Your task to perform on an android device: Go to Yahoo.com Image 0: 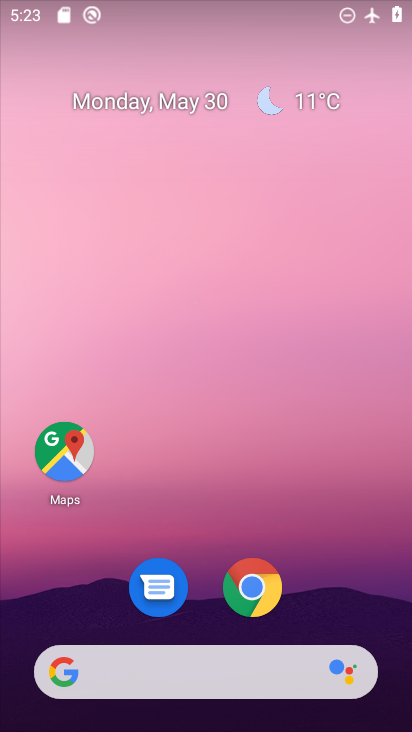
Step 0: drag from (352, 574) to (275, 5)
Your task to perform on an android device: Go to Yahoo.com Image 1: 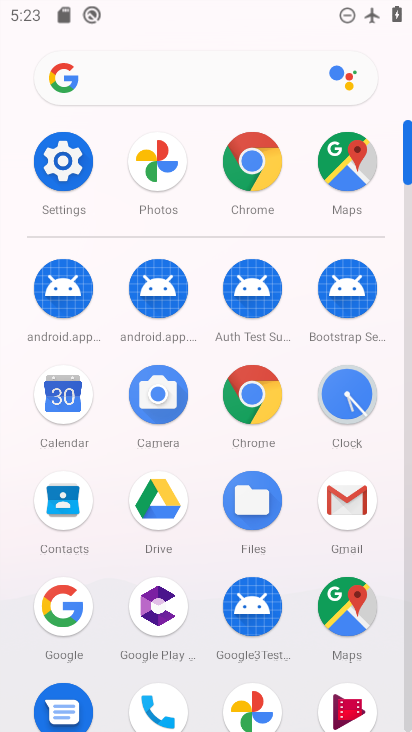
Step 1: drag from (0, 545) to (9, 219)
Your task to perform on an android device: Go to Yahoo.com Image 2: 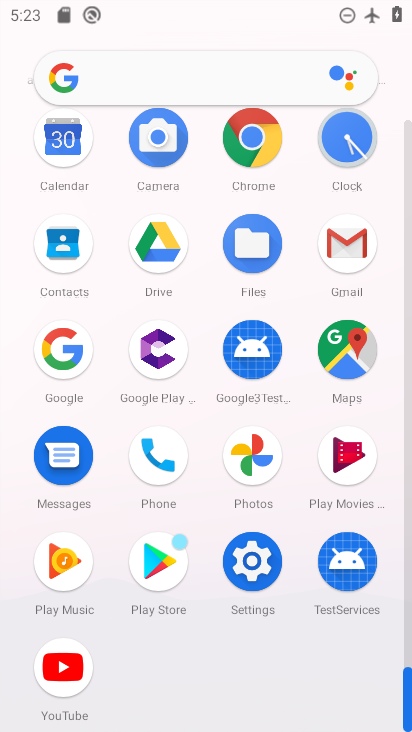
Step 2: click (252, 133)
Your task to perform on an android device: Go to Yahoo.com Image 3: 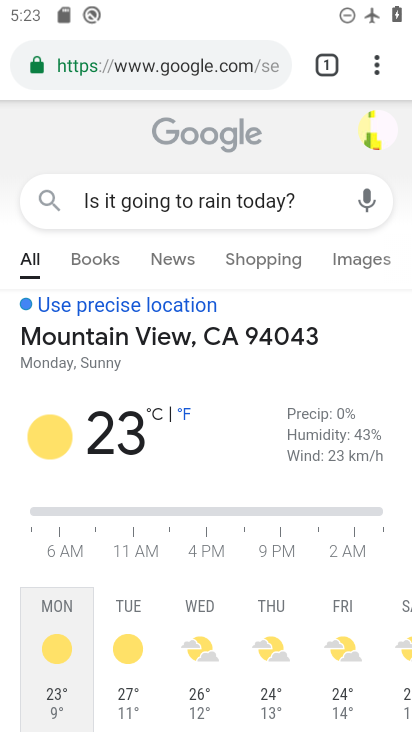
Step 3: click (177, 58)
Your task to perform on an android device: Go to Yahoo.com Image 4: 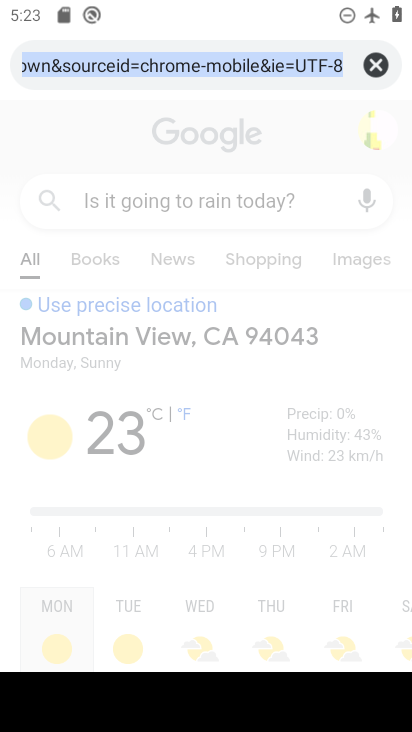
Step 4: click (368, 60)
Your task to perform on an android device: Go to Yahoo.com Image 5: 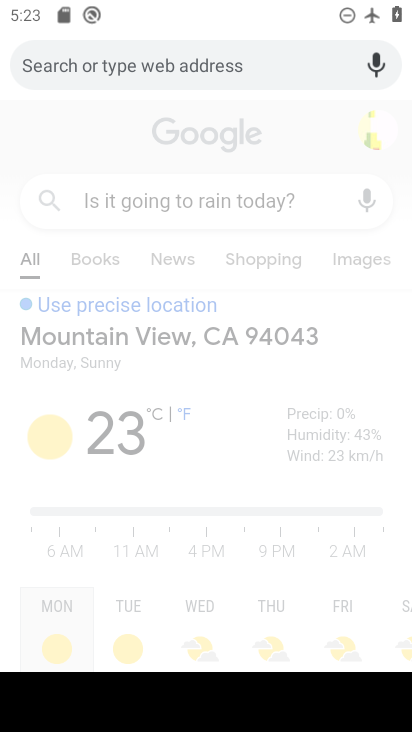
Step 5: type "Yahoo.com"
Your task to perform on an android device: Go to Yahoo.com Image 6: 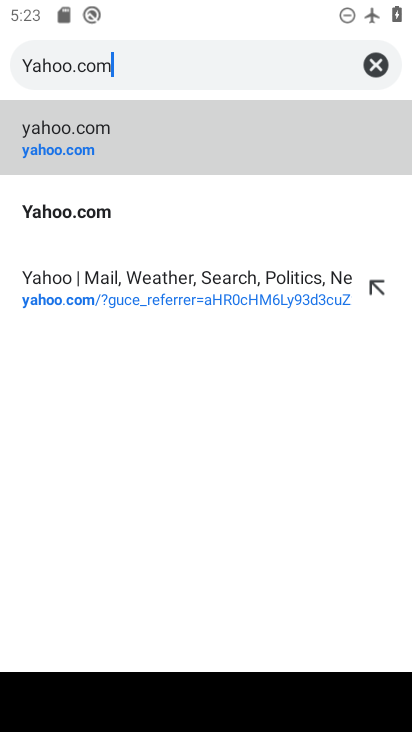
Step 6: type ""
Your task to perform on an android device: Go to Yahoo.com Image 7: 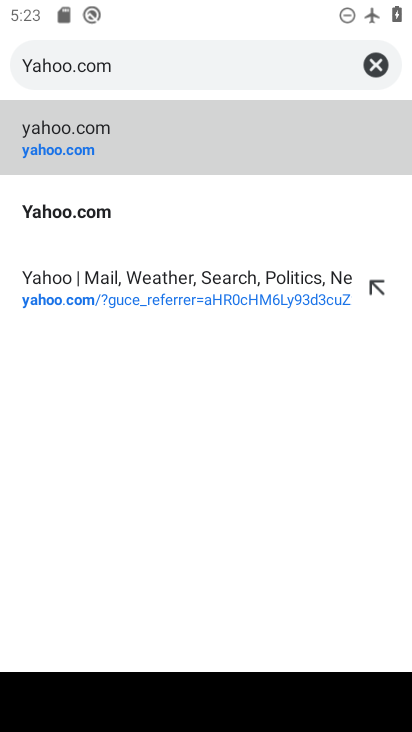
Step 7: click (94, 148)
Your task to perform on an android device: Go to Yahoo.com Image 8: 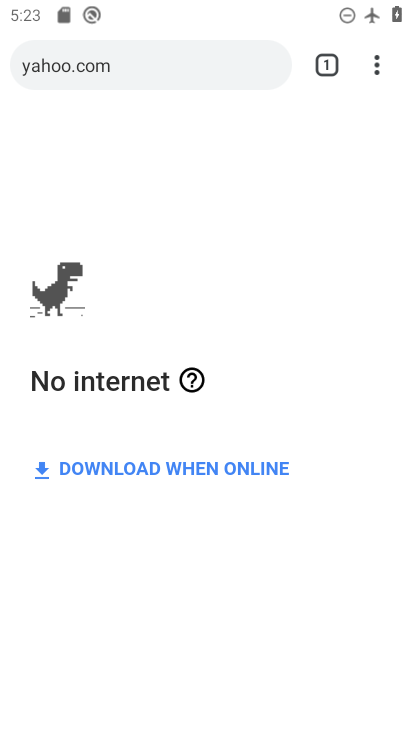
Step 8: task complete